Your task to perform on an android device: change text size in settings app Image 0: 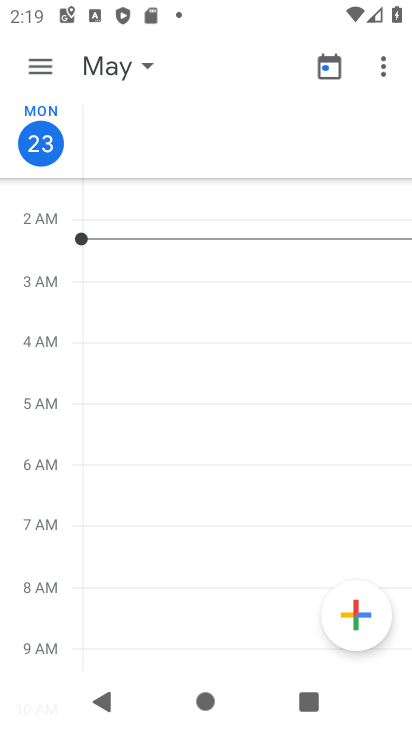
Step 0: press home button
Your task to perform on an android device: change text size in settings app Image 1: 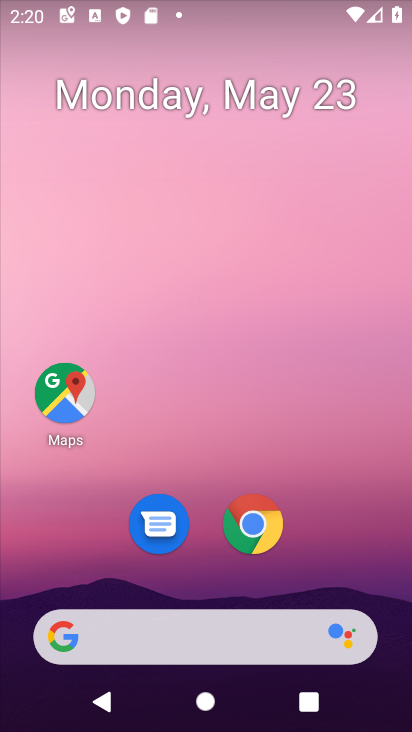
Step 1: drag from (205, 443) to (233, 27)
Your task to perform on an android device: change text size in settings app Image 2: 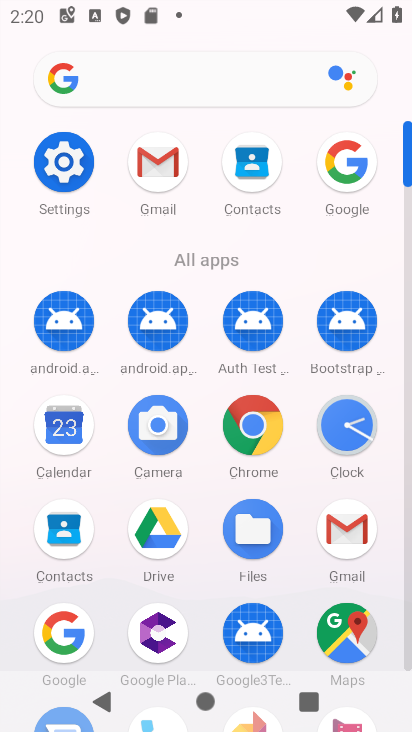
Step 2: click (80, 152)
Your task to perform on an android device: change text size in settings app Image 3: 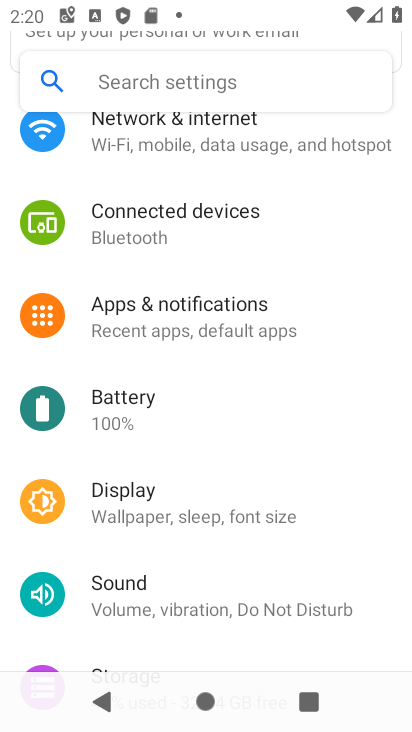
Step 3: click (188, 509)
Your task to perform on an android device: change text size in settings app Image 4: 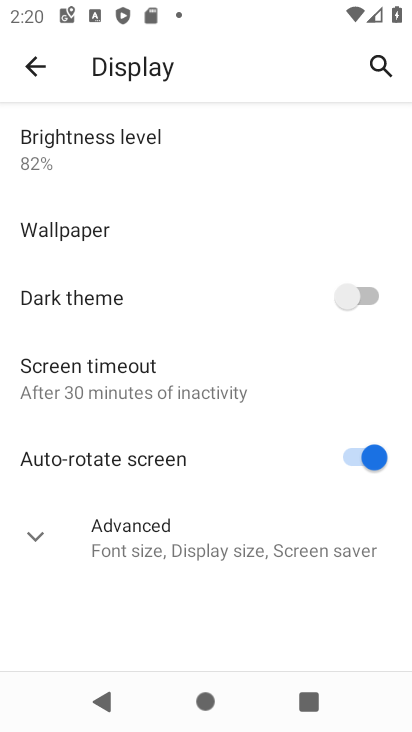
Step 4: click (39, 533)
Your task to perform on an android device: change text size in settings app Image 5: 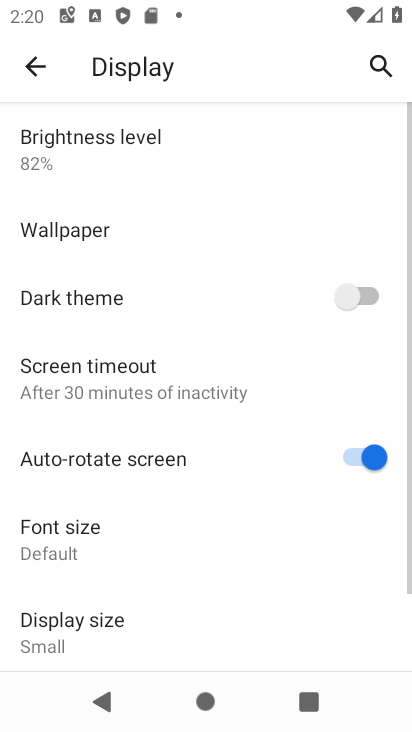
Step 5: click (109, 535)
Your task to perform on an android device: change text size in settings app Image 6: 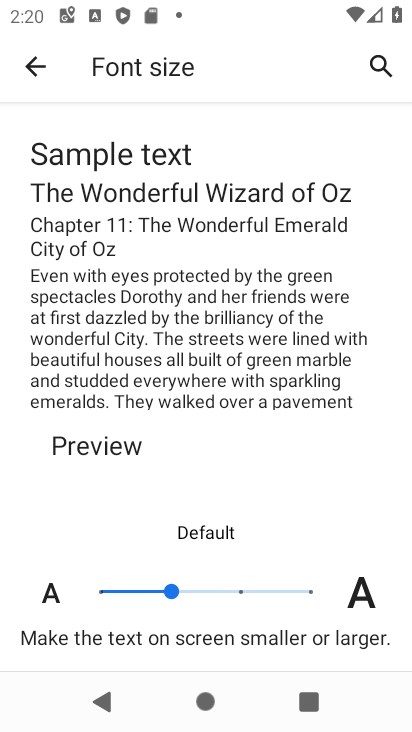
Step 6: click (104, 585)
Your task to perform on an android device: change text size in settings app Image 7: 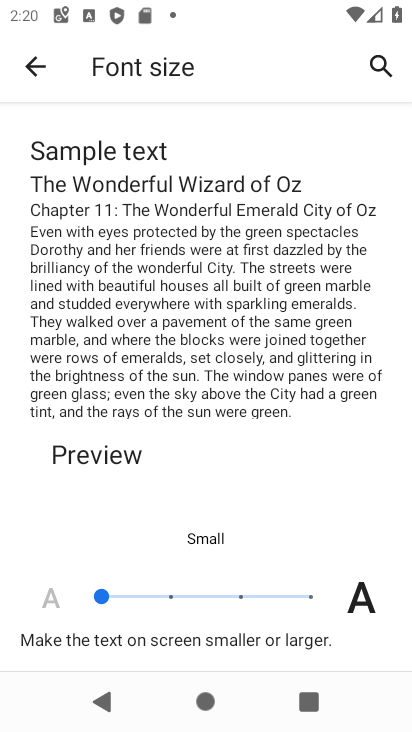
Step 7: click (29, 51)
Your task to perform on an android device: change text size in settings app Image 8: 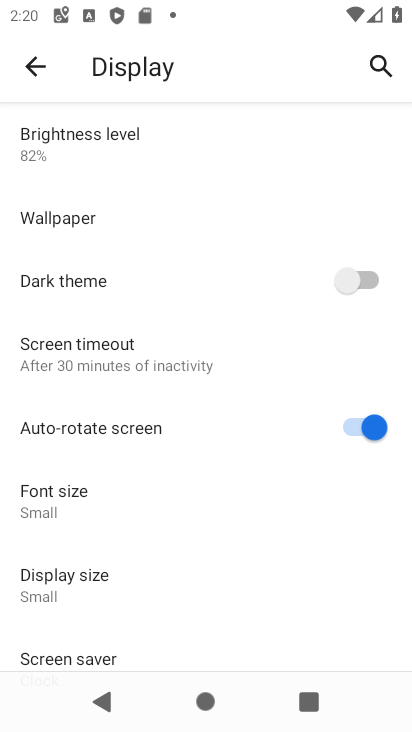
Step 8: task complete